Your task to perform on an android device: Go to settings Image 0: 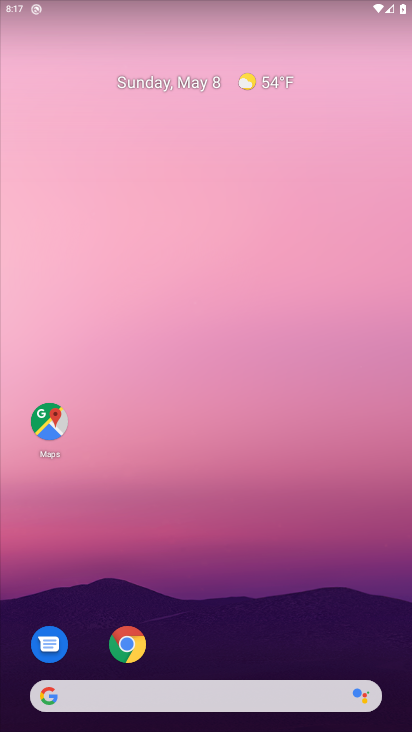
Step 0: drag from (202, 682) to (202, 484)
Your task to perform on an android device: Go to settings Image 1: 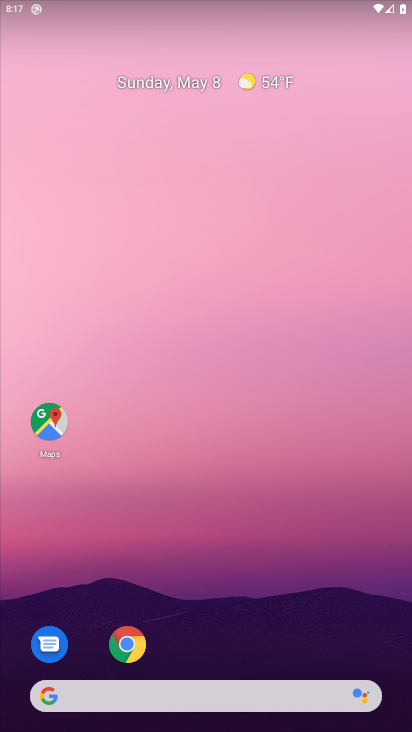
Step 1: drag from (211, 660) to (228, 209)
Your task to perform on an android device: Go to settings Image 2: 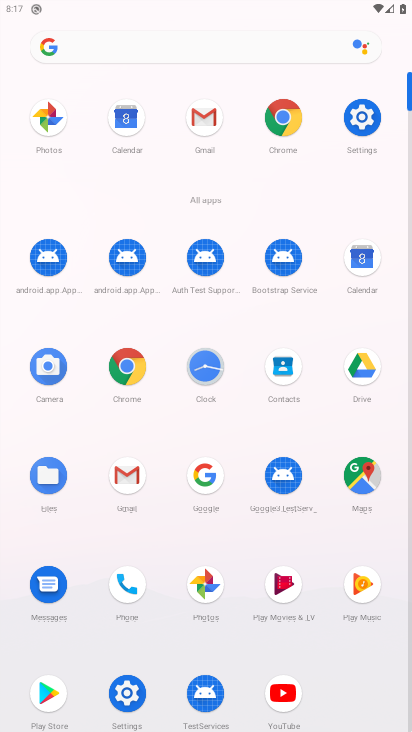
Step 2: click (376, 112)
Your task to perform on an android device: Go to settings Image 3: 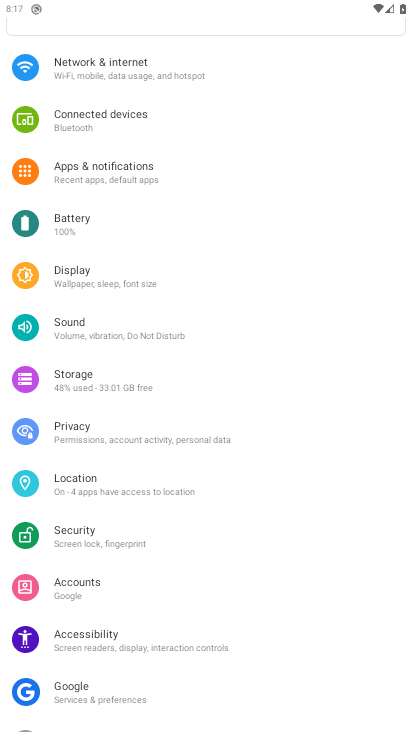
Step 3: task complete